Your task to perform on an android device: Open accessibility settings Image 0: 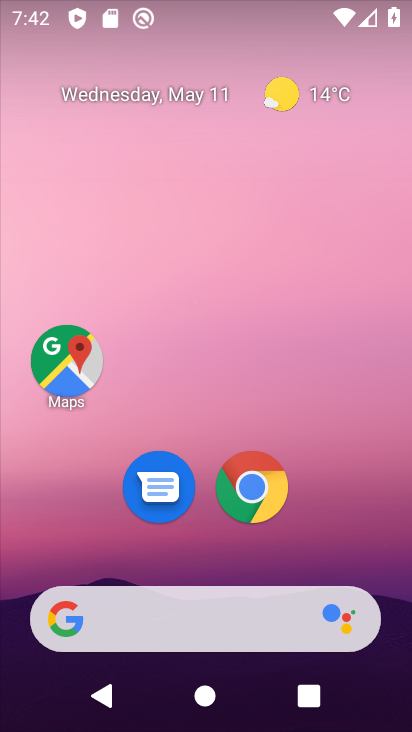
Step 0: drag from (216, 585) to (214, 127)
Your task to perform on an android device: Open accessibility settings Image 1: 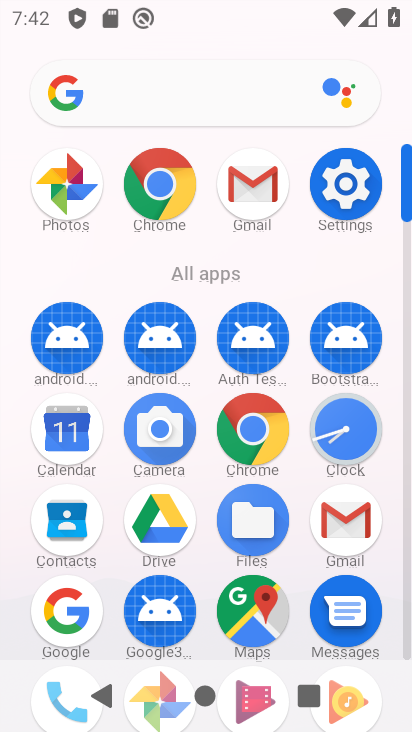
Step 1: click (362, 182)
Your task to perform on an android device: Open accessibility settings Image 2: 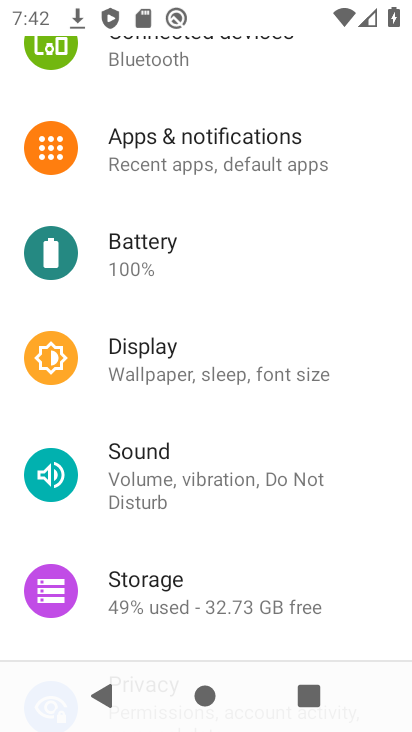
Step 2: drag from (151, 616) to (118, 244)
Your task to perform on an android device: Open accessibility settings Image 3: 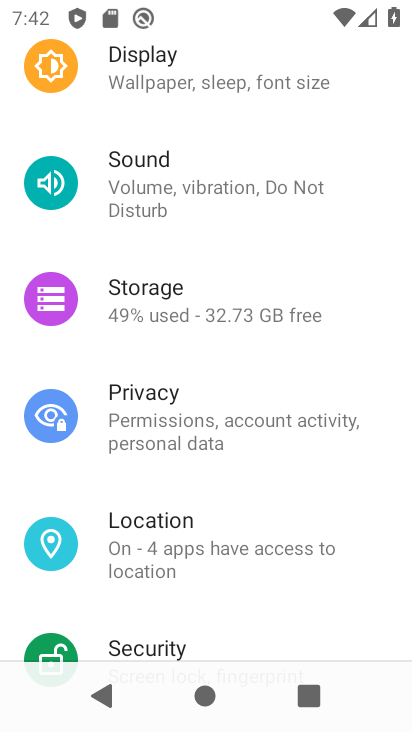
Step 3: drag from (171, 633) to (186, 280)
Your task to perform on an android device: Open accessibility settings Image 4: 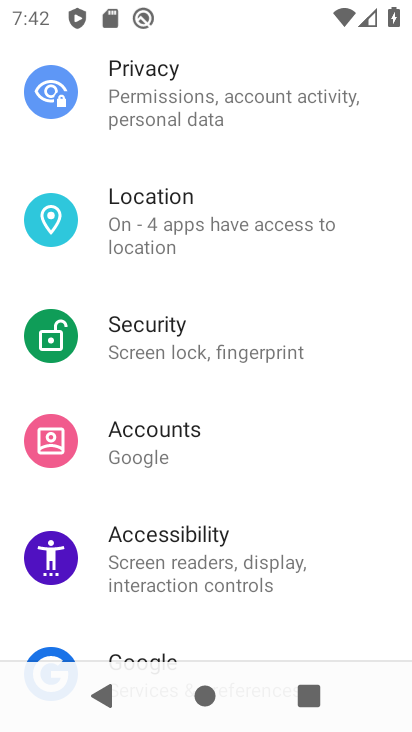
Step 4: click (165, 556)
Your task to perform on an android device: Open accessibility settings Image 5: 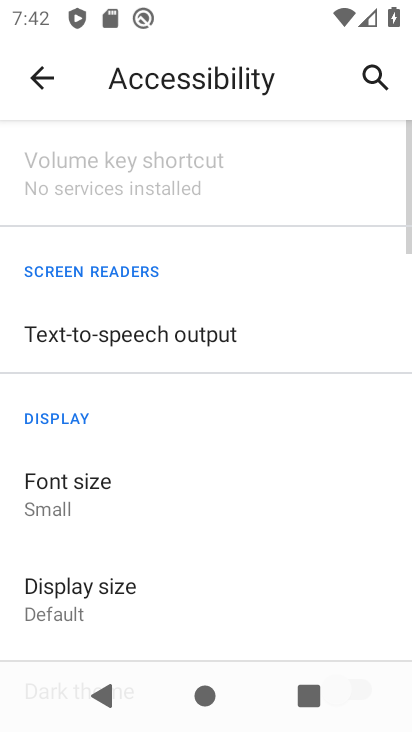
Step 5: task complete